Your task to perform on an android device: open app "Venmo" (install if not already installed) Image 0: 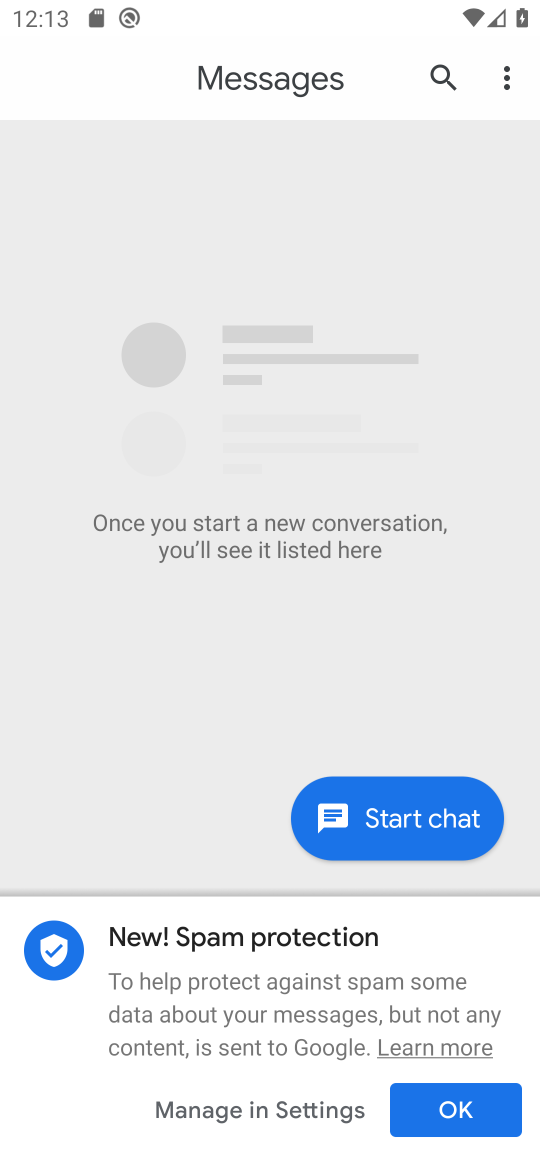
Step 0: press home button
Your task to perform on an android device: open app "Venmo" (install if not already installed) Image 1: 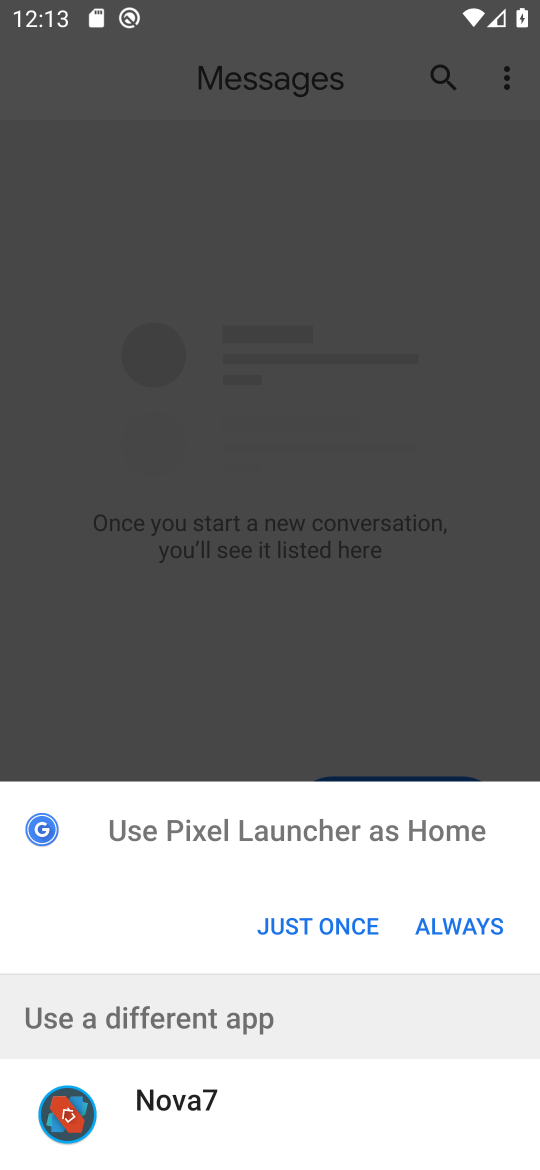
Step 1: click (292, 923)
Your task to perform on an android device: open app "Venmo" (install if not already installed) Image 2: 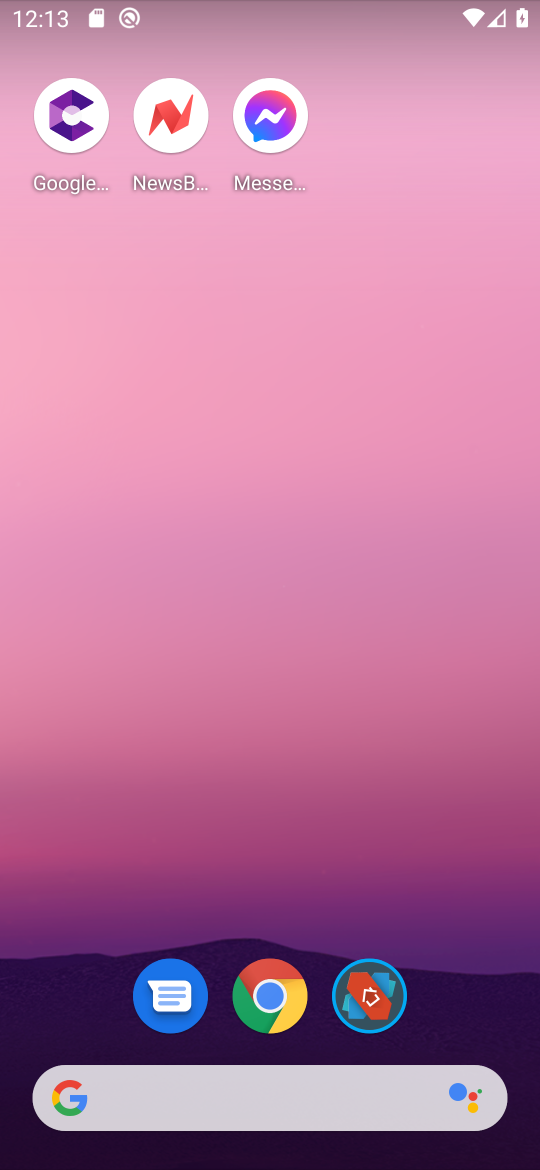
Step 2: drag from (280, 807) to (297, 0)
Your task to perform on an android device: open app "Venmo" (install if not already installed) Image 3: 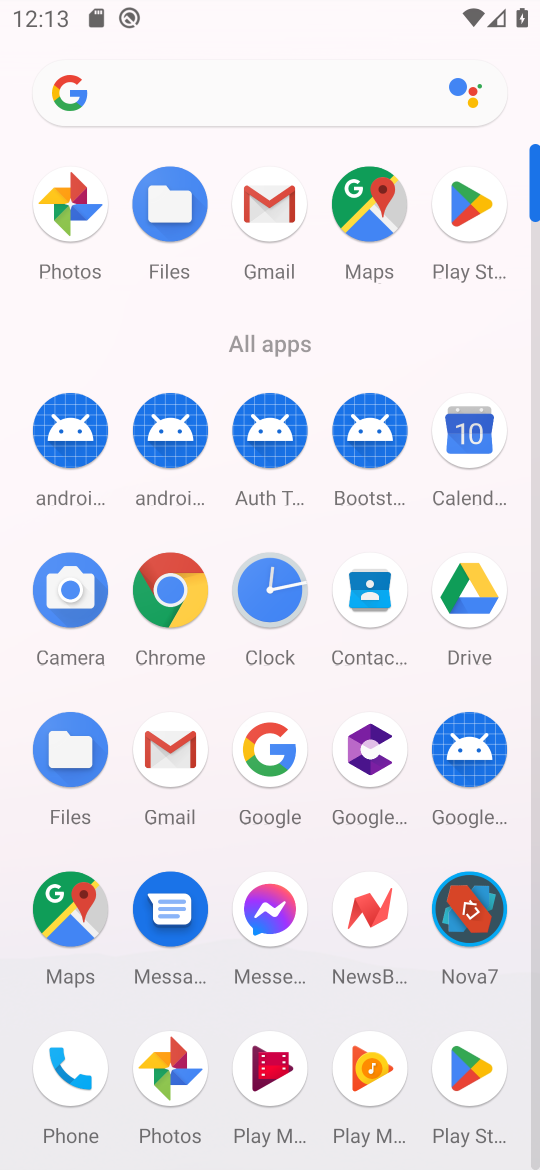
Step 3: click (474, 190)
Your task to perform on an android device: open app "Venmo" (install if not already installed) Image 4: 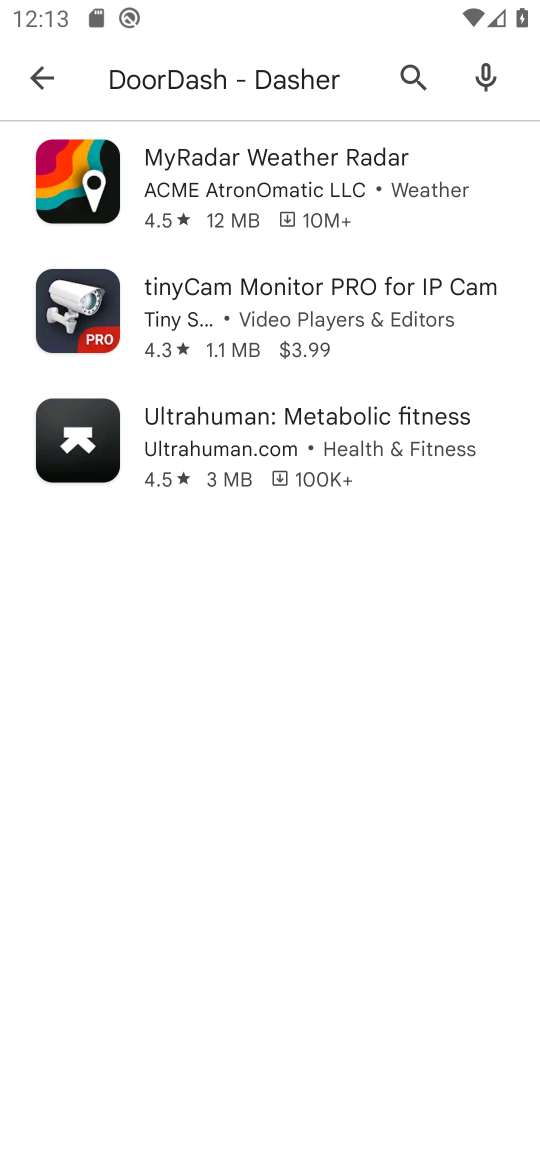
Step 4: press back button
Your task to perform on an android device: open app "Venmo" (install if not already installed) Image 5: 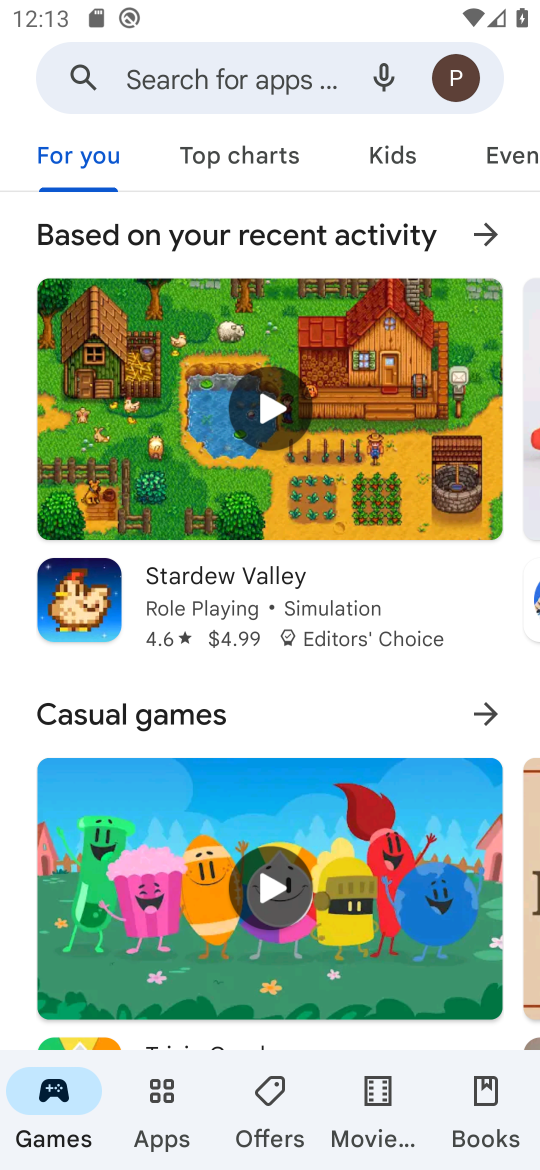
Step 5: click (193, 55)
Your task to perform on an android device: open app "Venmo" (install if not already installed) Image 6: 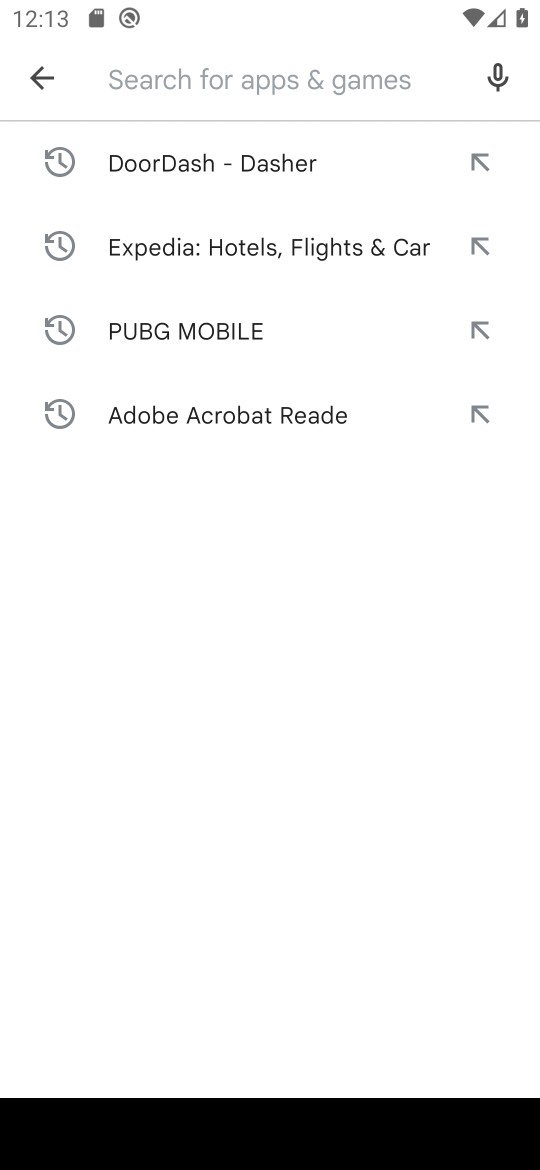
Step 6: type "Venmo"
Your task to perform on an android device: open app "Venmo" (install if not already installed) Image 7: 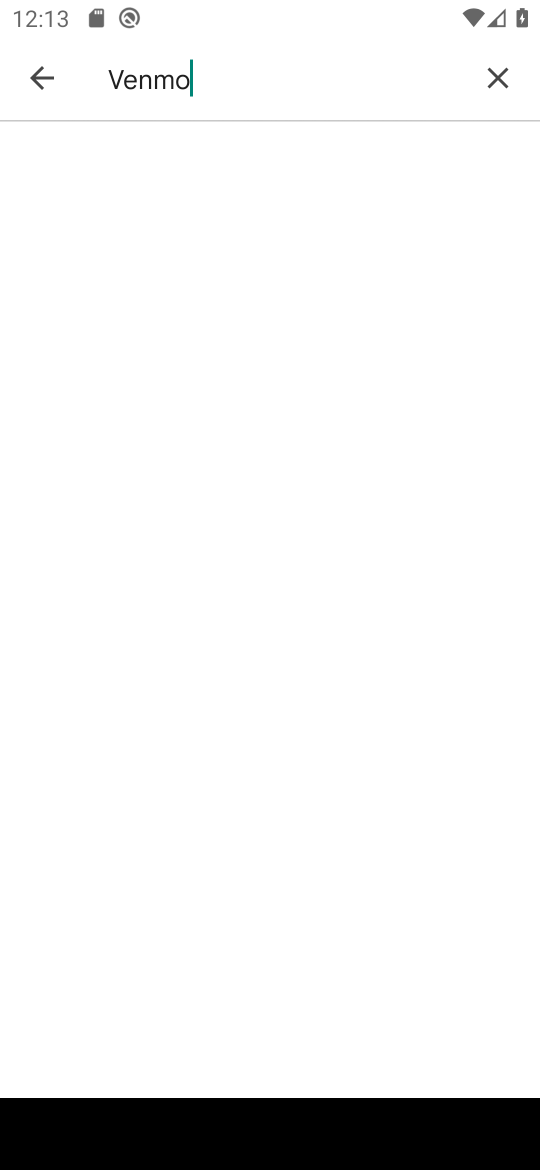
Step 7: press enter
Your task to perform on an android device: open app "Venmo" (install if not already installed) Image 8: 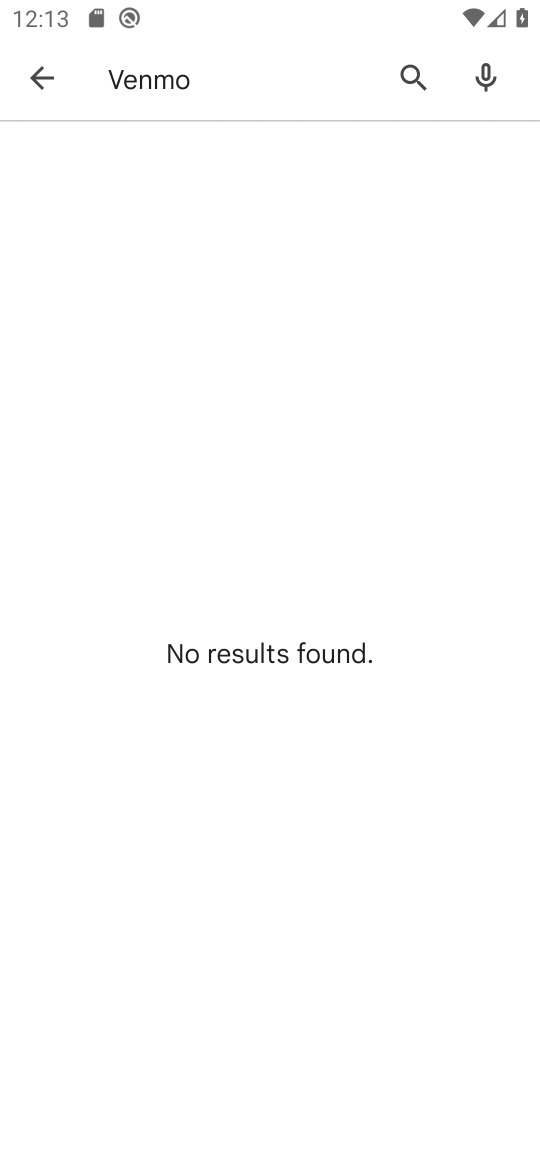
Step 8: press enter
Your task to perform on an android device: open app "Venmo" (install if not already installed) Image 9: 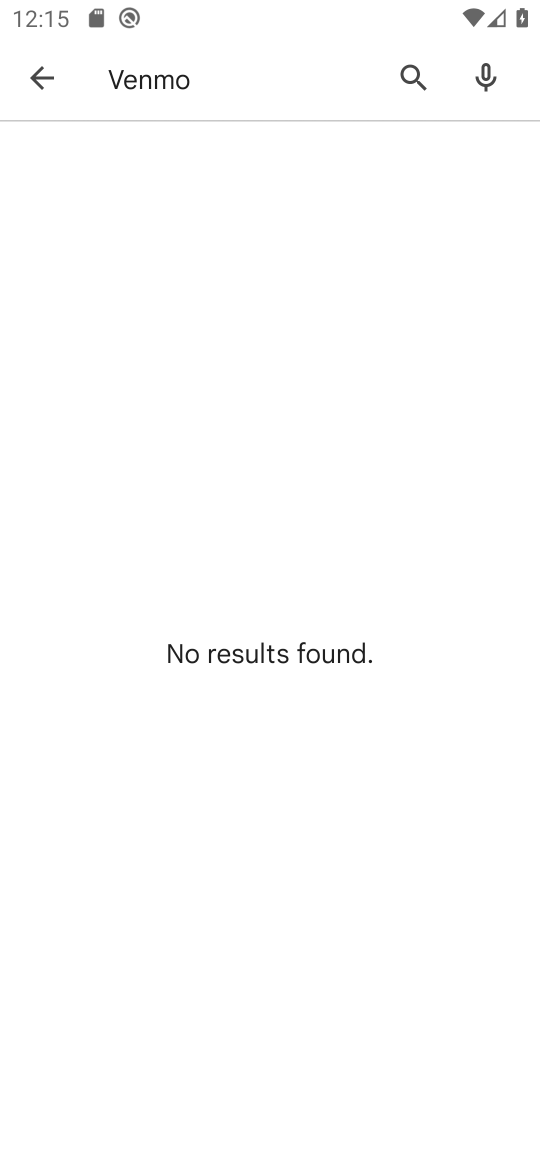
Step 9: task complete